Your task to perform on an android device: Open maps Image 0: 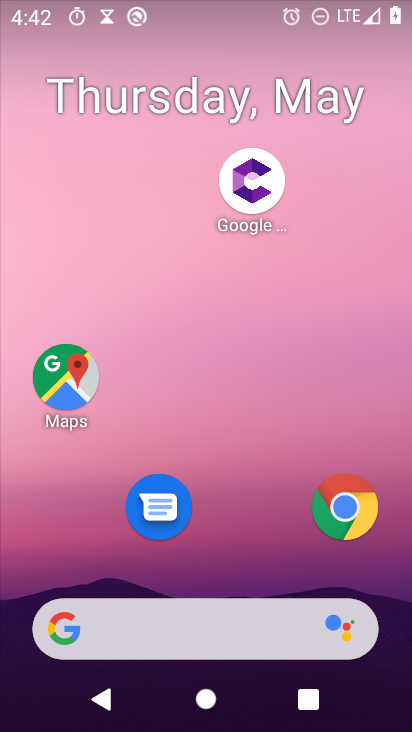
Step 0: click (66, 373)
Your task to perform on an android device: Open maps Image 1: 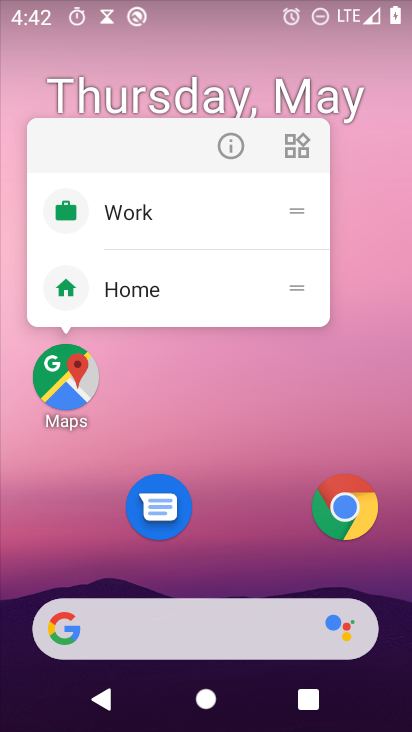
Step 1: click (80, 384)
Your task to perform on an android device: Open maps Image 2: 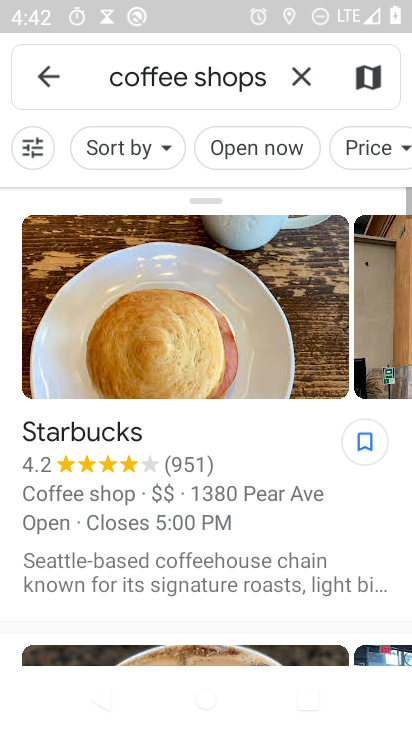
Step 2: click (306, 77)
Your task to perform on an android device: Open maps Image 3: 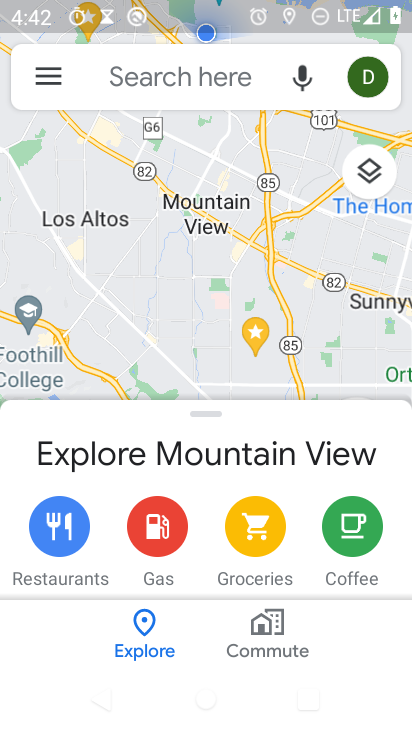
Step 3: task complete